Your task to perform on an android device: turn off location Image 0: 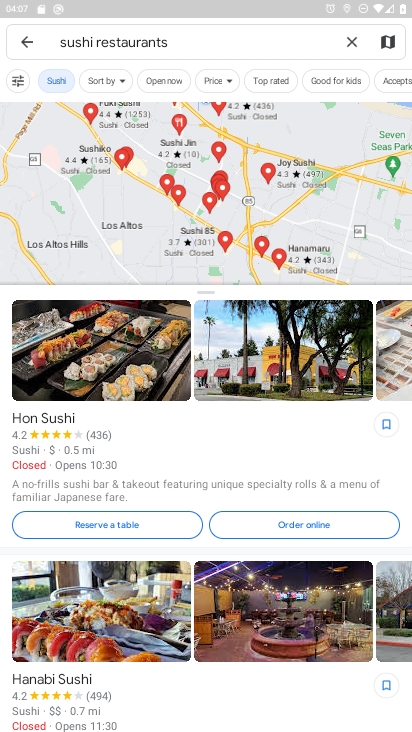
Step 0: press home button
Your task to perform on an android device: turn off location Image 1: 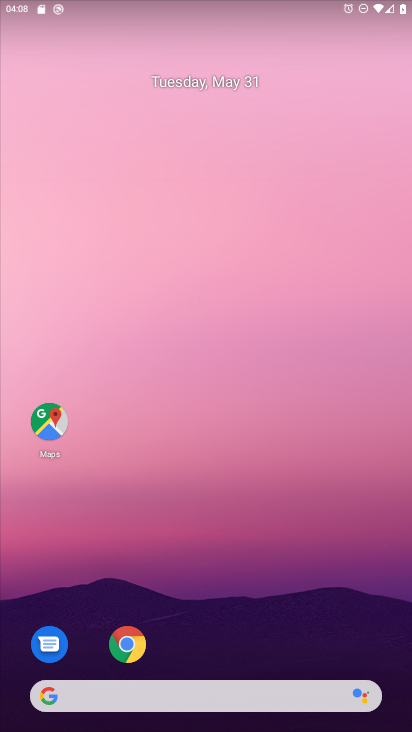
Step 1: drag from (258, 613) to (262, 77)
Your task to perform on an android device: turn off location Image 2: 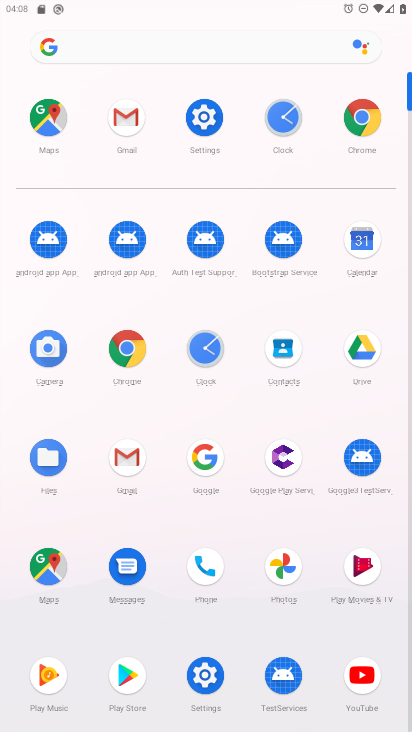
Step 2: click (212, 105)
Your task to perform on an android device: turn off location Image 3: 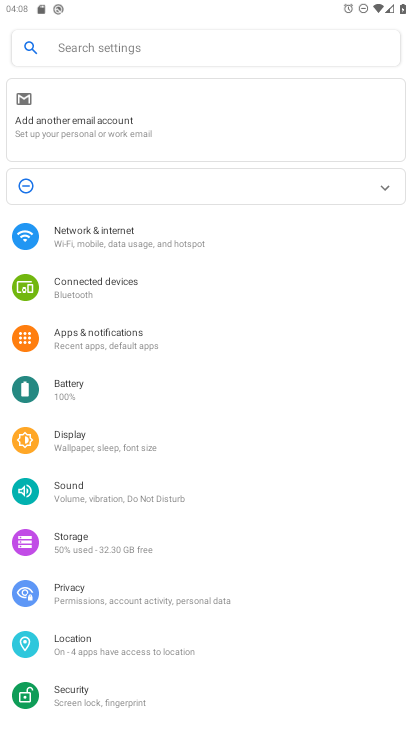
Step 3: click (147, 649)
Your task to perform on an android device: turn off location Image 4: 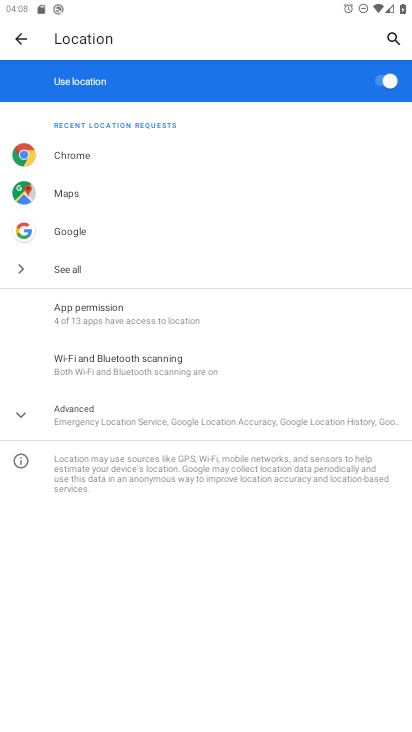
Step 4: click (394, 72)
Your task to perform on an android device: turn off location Image 5: 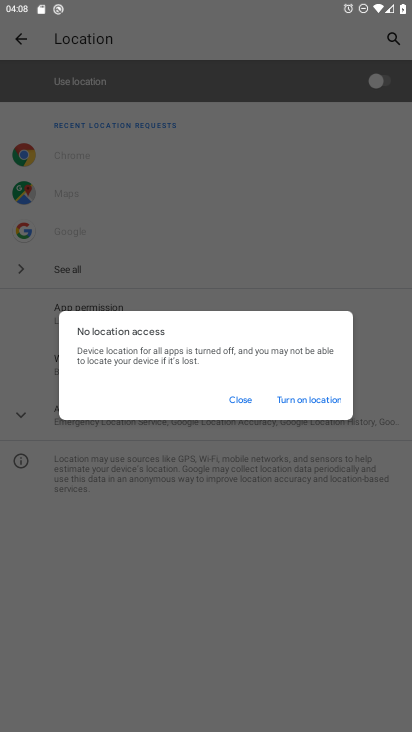
Step 5: task complete